Your task to perform on an android device: Clear the cart on newegg.com. Search for razer kraken on newegg.com, select the first entry, and add it to the cart. Image 0: 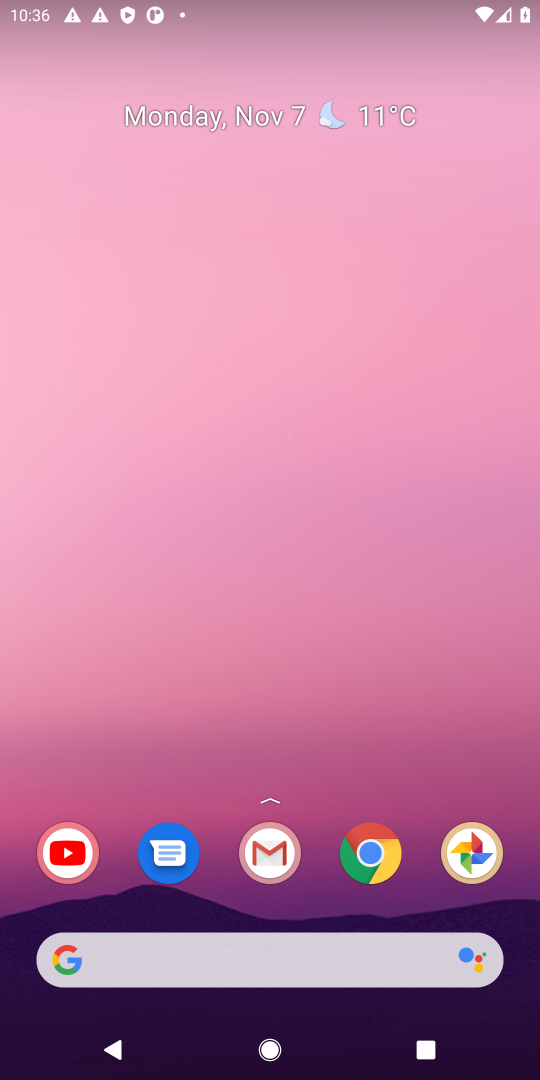
Step 0: click (187, 948)
Your task to perform on an android device: Clear the cart on newegg.com. Search for razer kraken on newegg.com, select the first entry, and add it to the cart. Image 1: 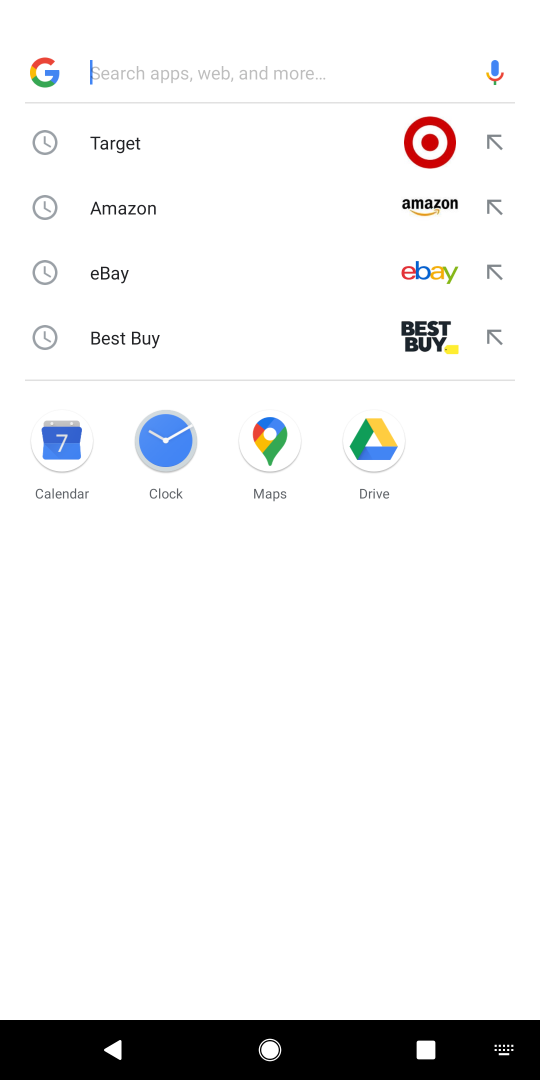
Step 1: type "newegg"
Your task to perform on an android device: Clear the cart on newegg.com. Search for razer kraken on newegg.com, select the first entry, and add it to the cart. Image 2: 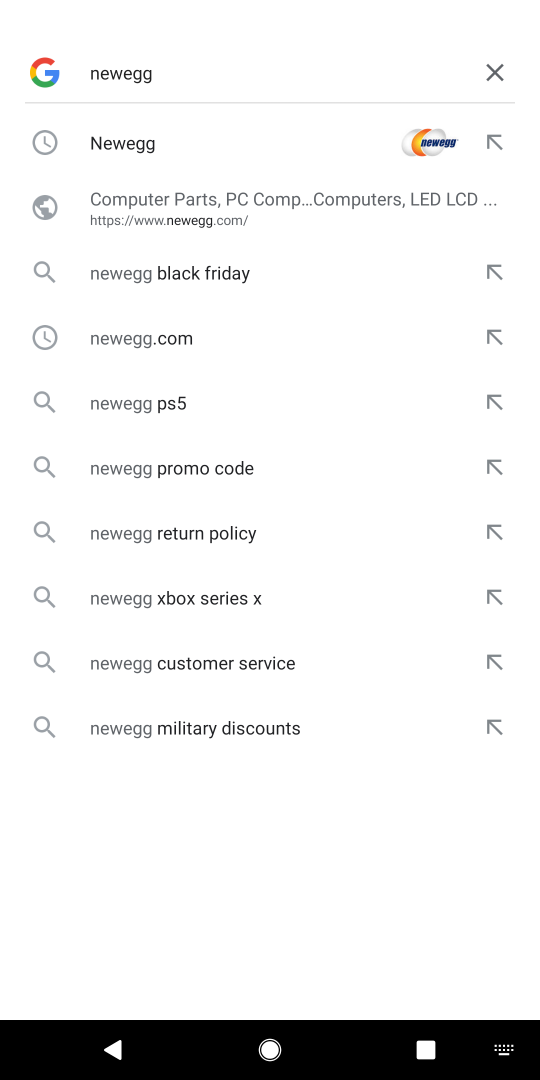
Step 2: click (142, 135)
Your task to perform on an android device: Clear the cart on newegg.com. Search for razer kraken on newegg.com, select the first entry, and add it to the cart. Image 3: 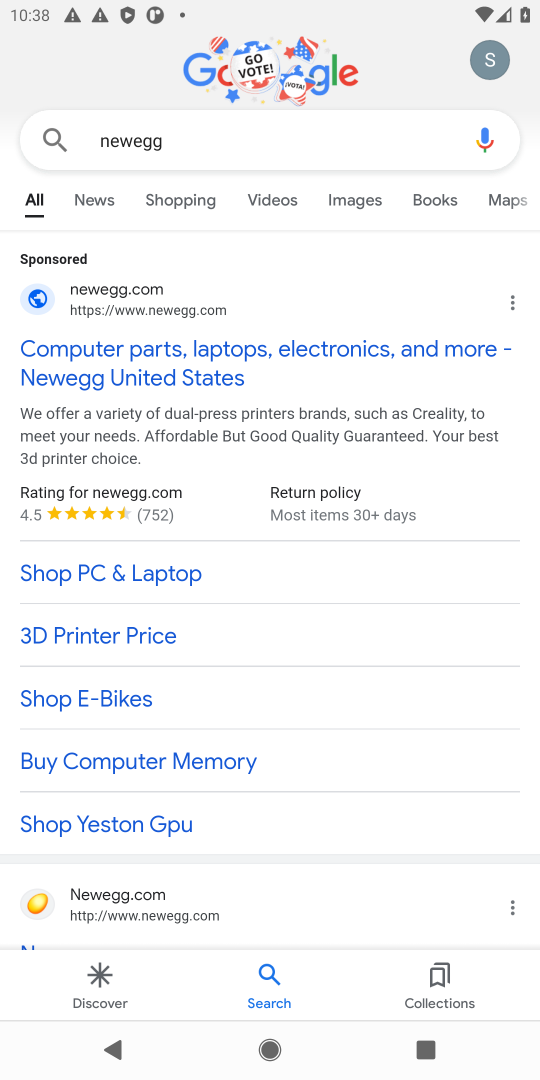
Step 3: click (194, 383)
Your task to perform on an android device: Clear the cart on newegg.com. Search for razer kraken on newegg.com, select the first entry, and add it to the cart. Image 4: 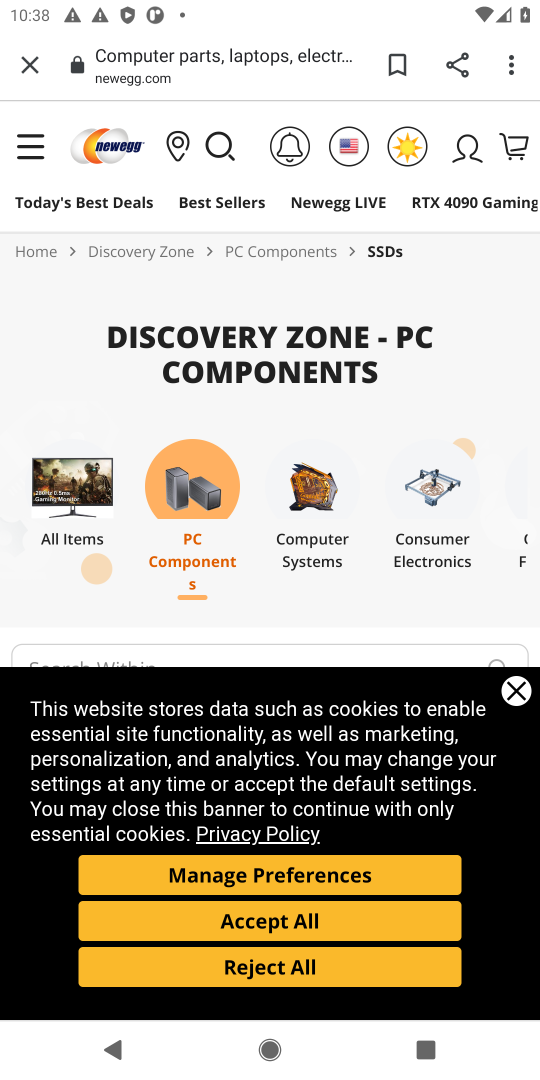
Step 4: click (295, 912)
Your task to perform on an android device: Clear the cart on newegg.com. Search for razer kraken on newegg.com, select the first entry, and add it to the cart. Image 5: 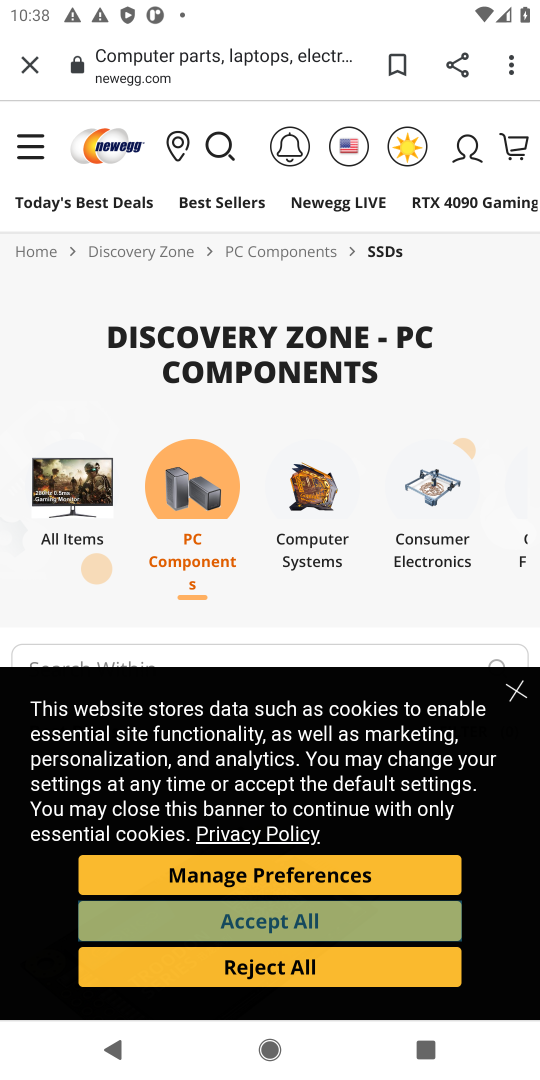
Step 5: click (229, 141)
Your task to perform on an android device: Clear the cart on newegg.com. Search for razer kraken on newegg.com, select the first entry, and add it to the cart. Image 6: 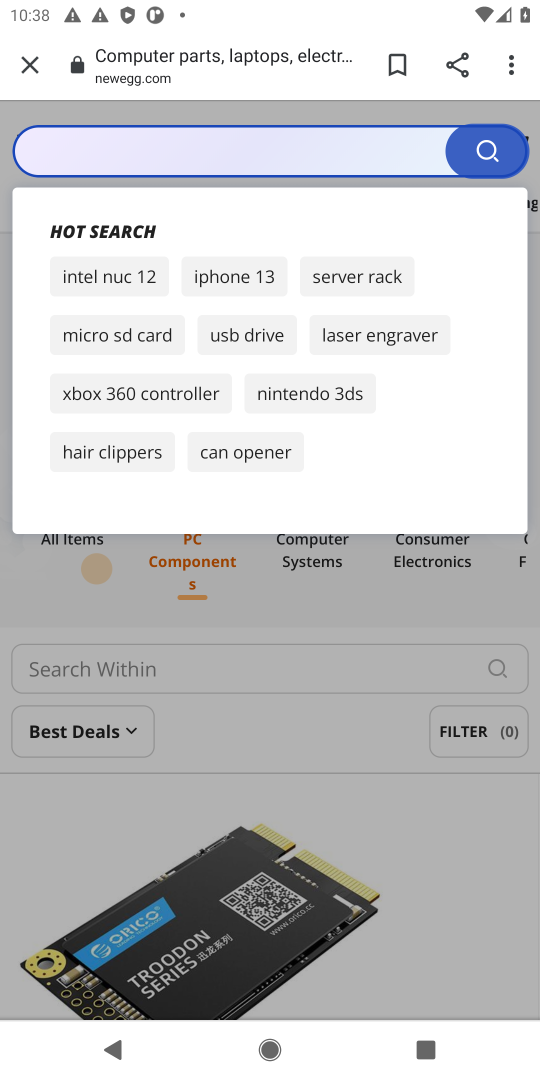
Step 6: type "razer kaeken"
Your task to perform on an android device: Clear the cart on newegg.com. Search for razer kraken on newegg.com, select the first entry, and add it to the cart. Image 7: 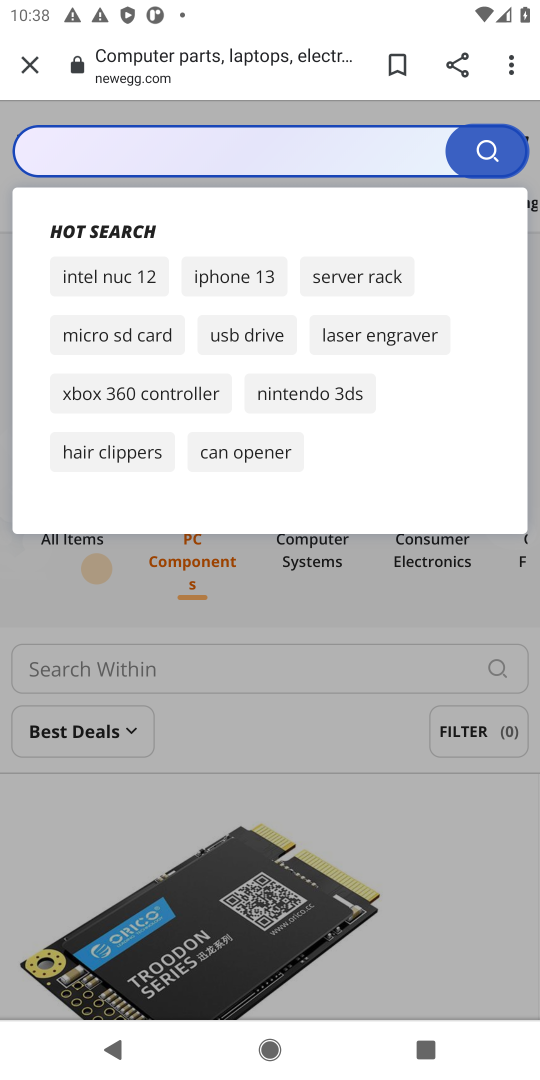
Step 7: task complete